Your task to perform on an android device: What is the recent news? Image 0: 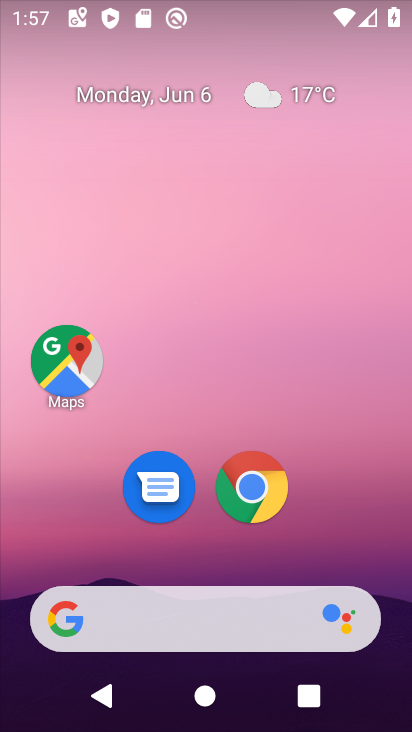
Step 0: drag from (1, 254) to (402, 290)
Your task to perform on an android device: What is the recent news? Image 1: 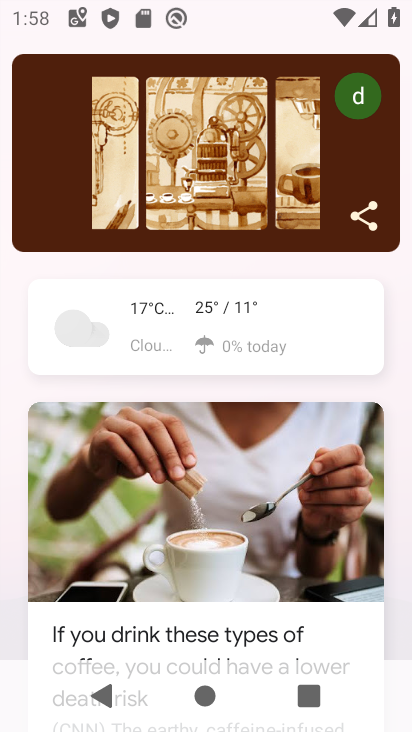
Step 1: task complete